Your task to perform on an android device: toggle location history Image 0: 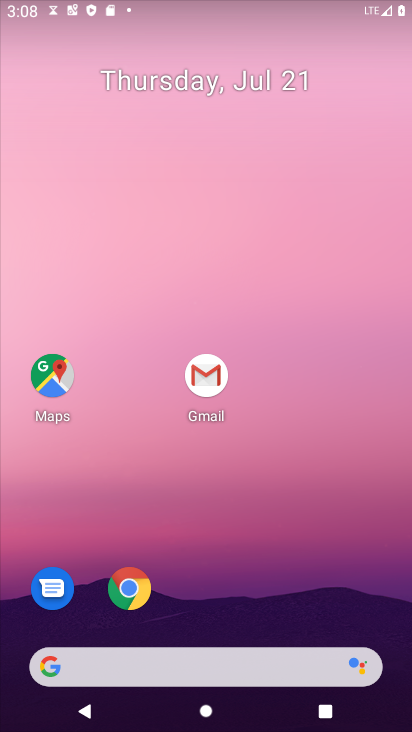
Step 0: drag from (209, 570) to (235, 55)
Your task to perform on an android device: toggle location history Image 1: 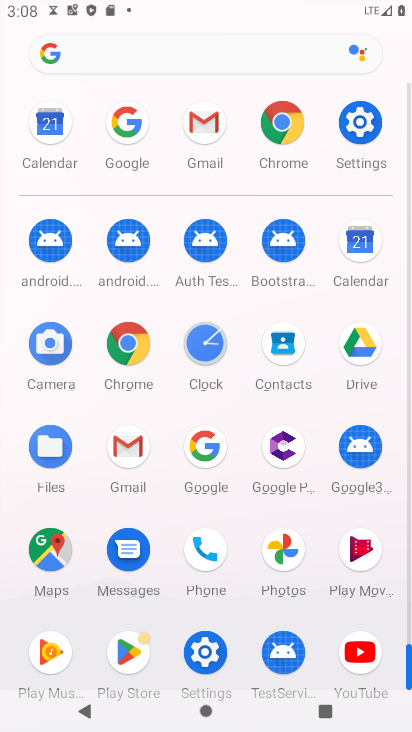
Step 1: click (202, 653)
Your task to perform on an android device: toggle location history Image 2: 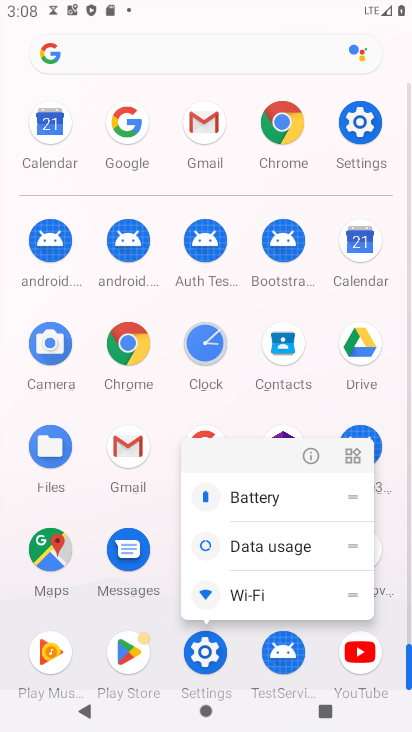
Step 2: click (311, 456)
Your task to perform on an android device: toggle location history Image 3: 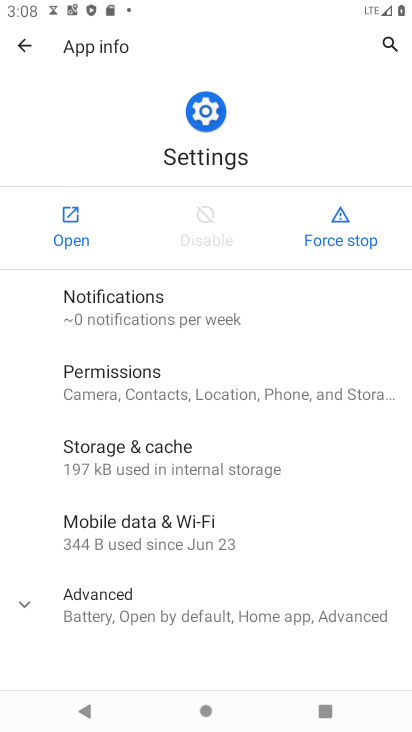
Step 3: click (62, 225)
Your task to perform on an android device: toggle location history Image 4: 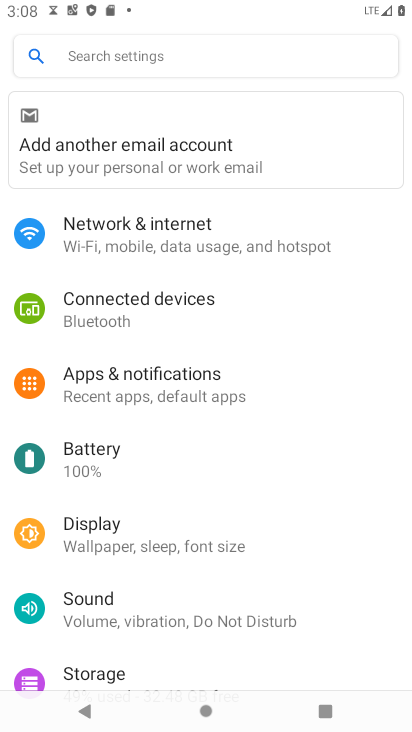
Step 4: drag from (194, 602) to (349, 32)
Your task to perform on an android device: toggle location history Image 5: 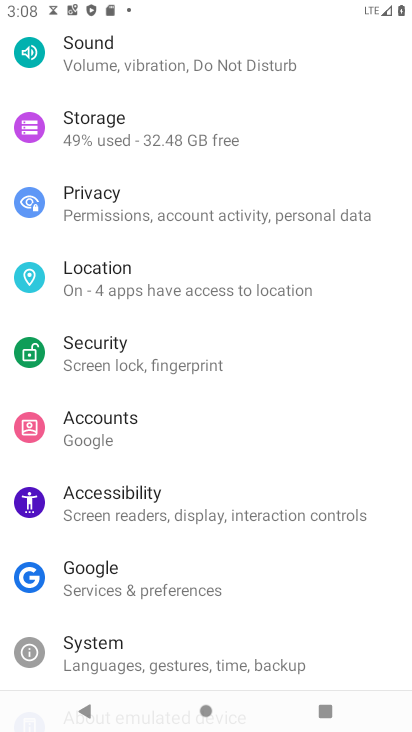
Step 5: click (177, 272)
Your task to perform on an android device: toggle location history Image 6: 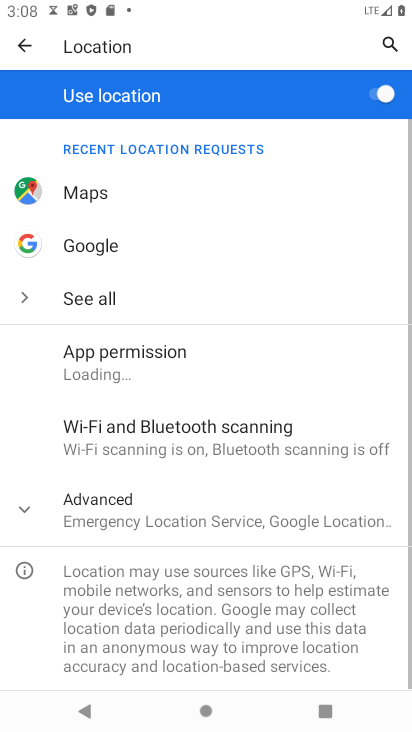
Step 6: click (172, 521)
Your task to perform on an android device: toggle location history Image 7: 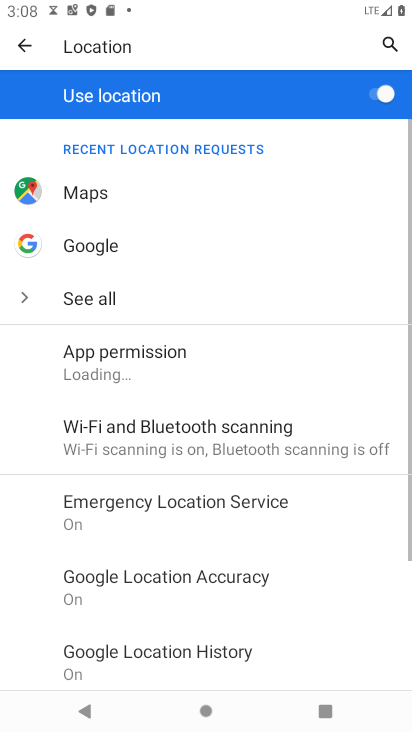
Step 7: drag from (188, 510) to (304, 47)
Your task to perform on an android device: toggle location history Image 8: 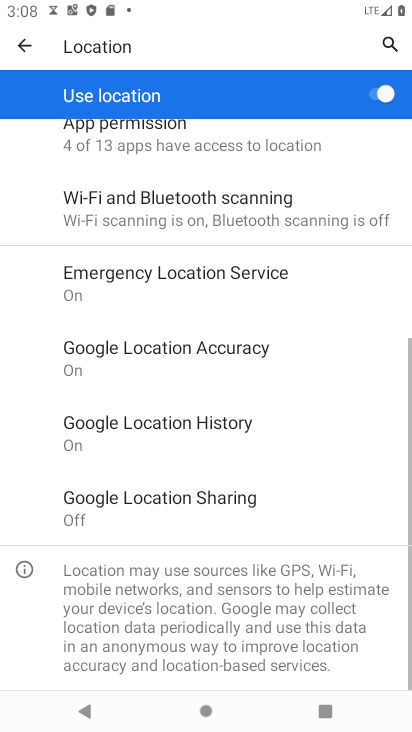
Step 8: click (220, 427)
Your task to perform on an android device: toggle location history Image 9: 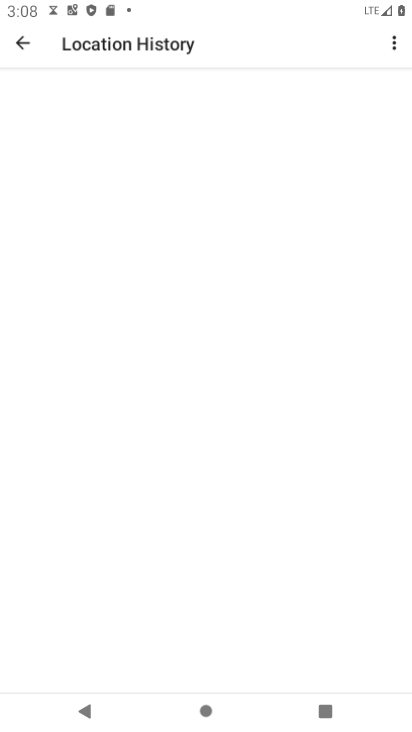
Step 9: task complete